Your task to perform on an android device: Go to Yahoo.com Image 0: 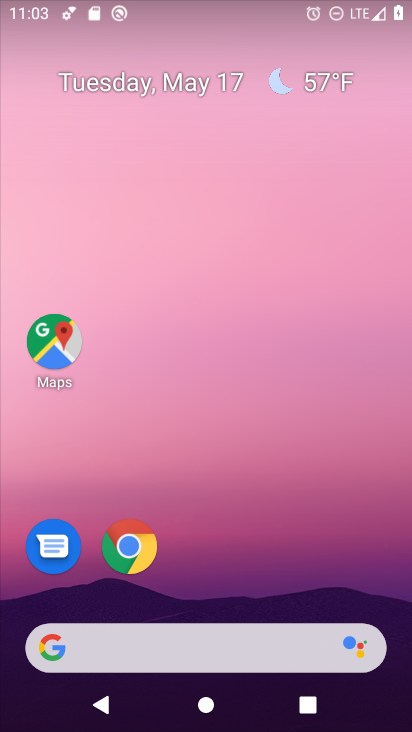
Step 0: click (130, 540)
Your task to perform on an android device: Go to Yahoo.com Image 1: 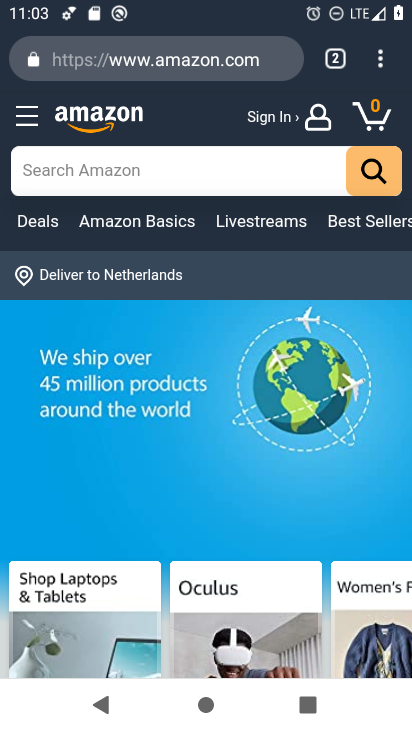
Step 1: click (128, 63)
Your task to perform on an android device: Go to Yahoo.com Image 2: 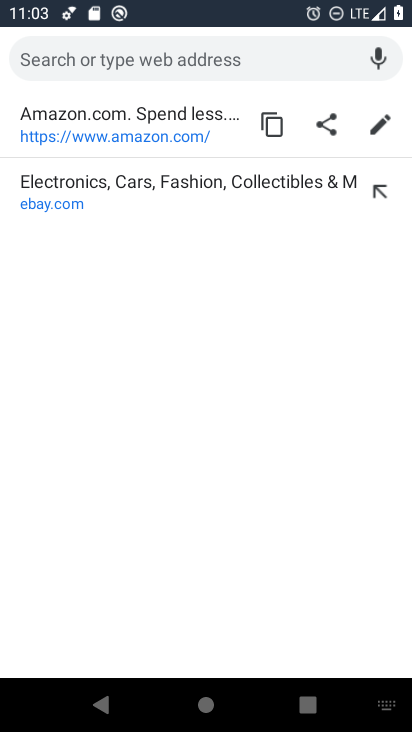
Step 2: type "yahoo.com"
Your task to perform on an android device: Go to Yahoo.com Image 3: 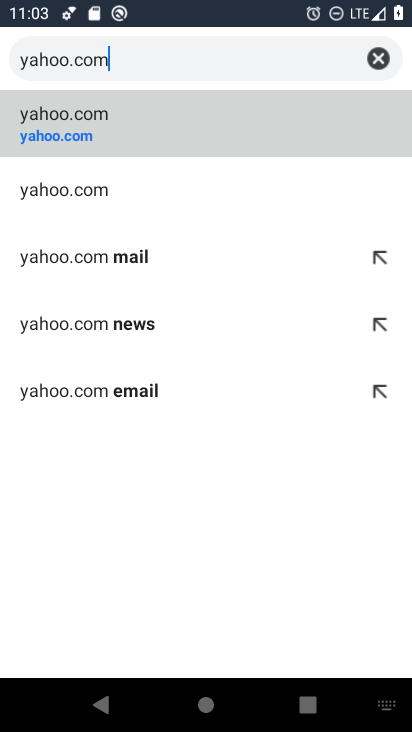
Step 3: click (80, 193)
Your task to perform on an android device: Go to Yahoo.com Image 4: 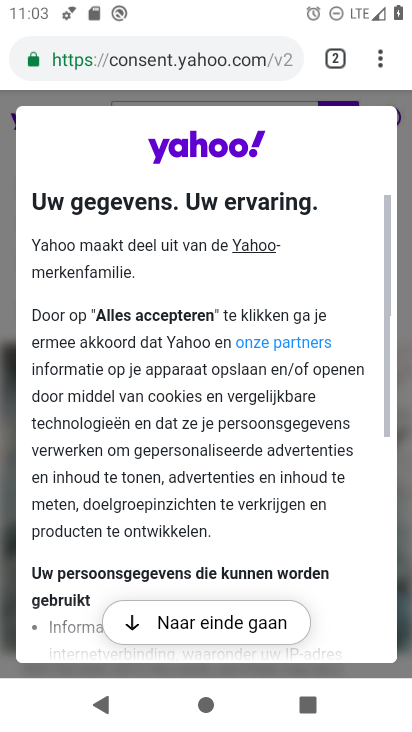
Step 4: task complete